Your task to perform on an android device: Open the web browser Image 0: 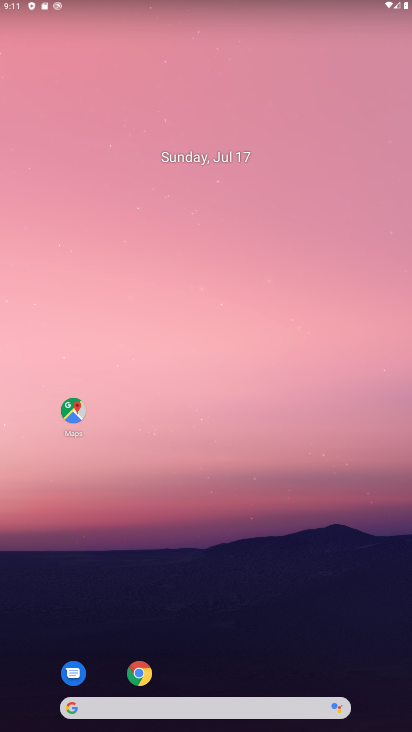
Step 0: click (141, 670)
Your task to perform on an android device: Open the web browser Image 1: 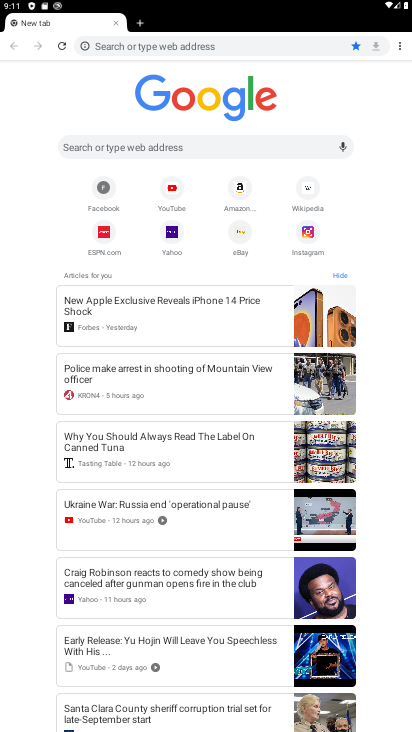
Step 1: task complete